Your task to perform on an android device: change keyboard looks Image 0: 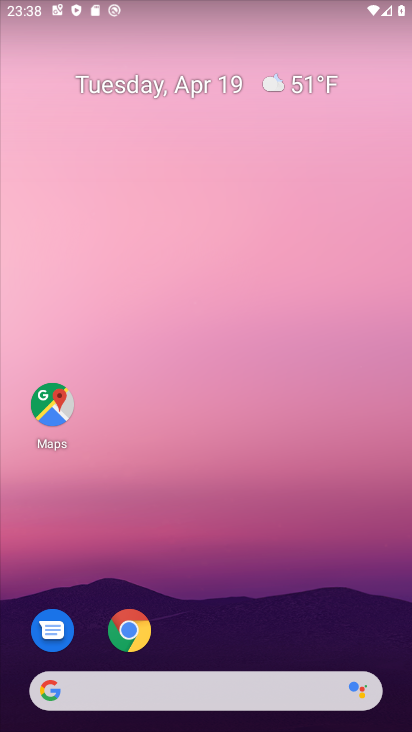
Step 0: drag from (287, 612) to (289, 85)
Your task to perform on an android device: change keyboard looks Image 1: 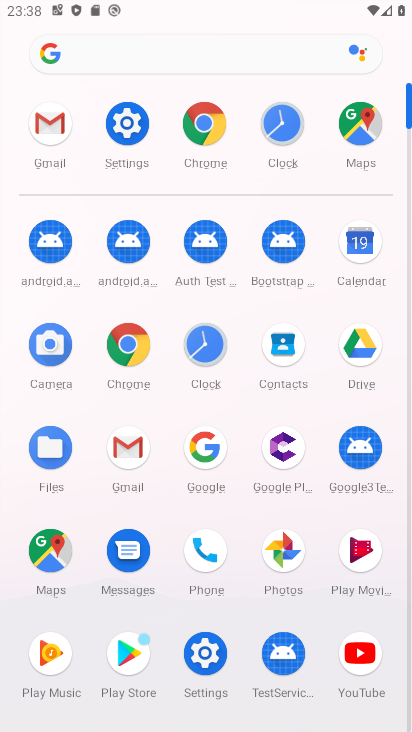
Step 1: click (115, 133)
Your task to perform on an android device: change keyboard looks Image 2: 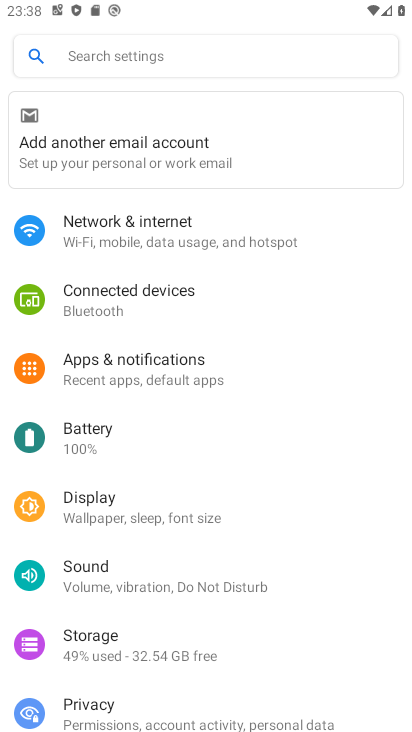
Step 2: drag from (257, 639) to (233, 196)
Your task to perform on an android device: change keyboard looks Image 3: 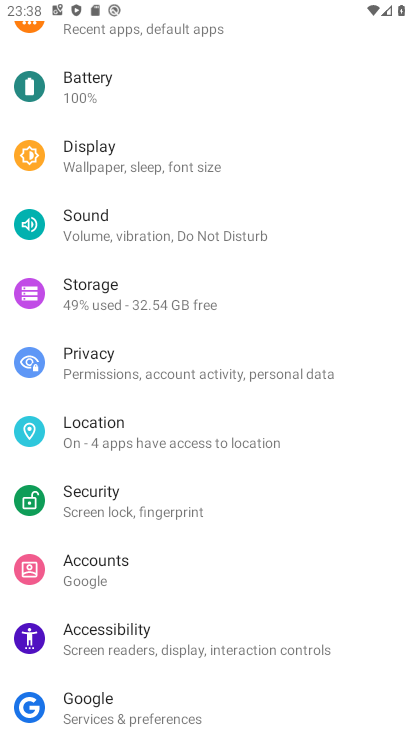
Step 3: drag from (243, 600) to (256, 65)
Your task to perform on an android device: change keyboard looks Image 4: 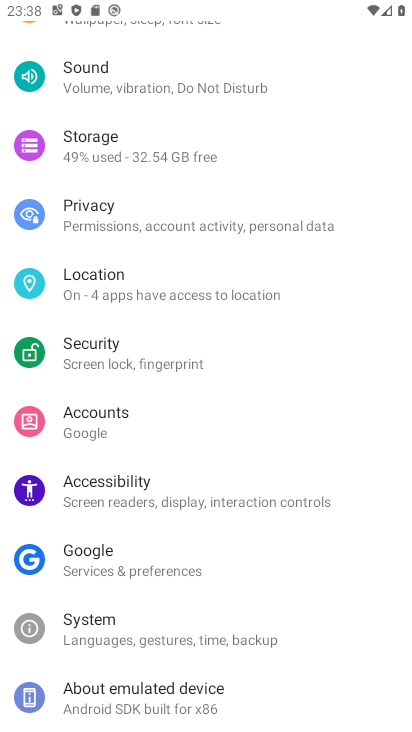
Step 4: drag from (288, 416) to (243, 111)
Your task to perform on an android device: change keyboard looks Image 5: 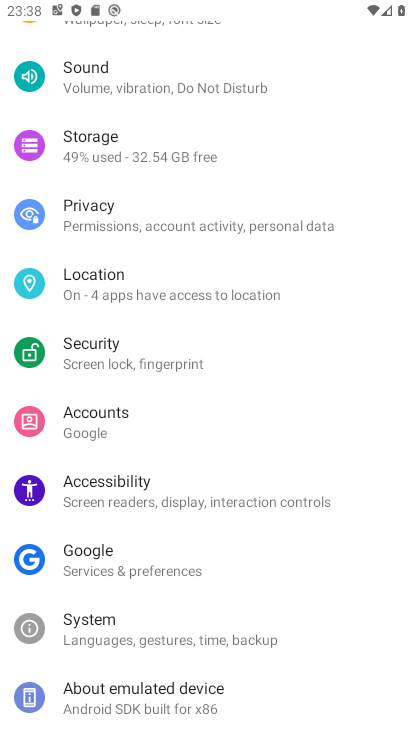
Step 5: click (301, 633)
Your task to perform on an android device: change keyboard looks Image 6: 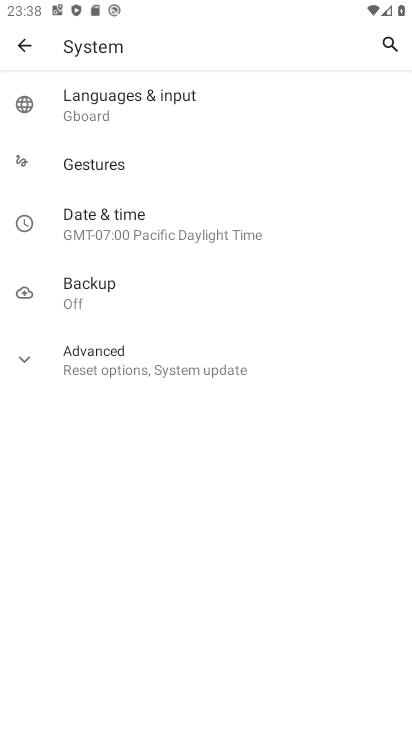
Step 6: click (236, 100)
Your task to perform on an android device: change keyboard looks Image 7: 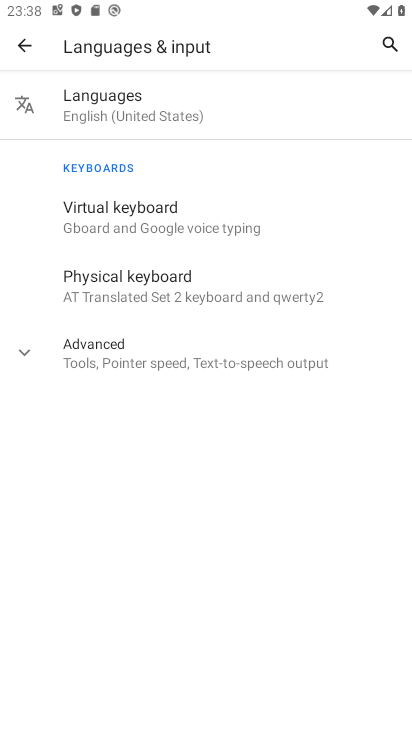
Step 7: click (245, 217)
Your task to perform on an android device: change keyboard looks Image 8: 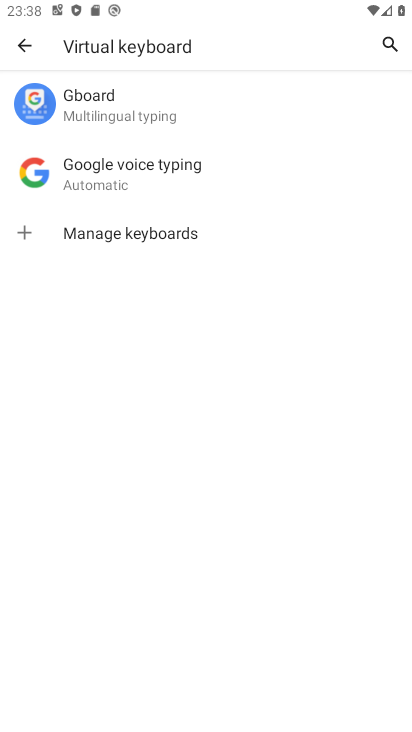
Step 8: click (235, 105)
Your task to perform on an android device: change keyboard looks Image 9: 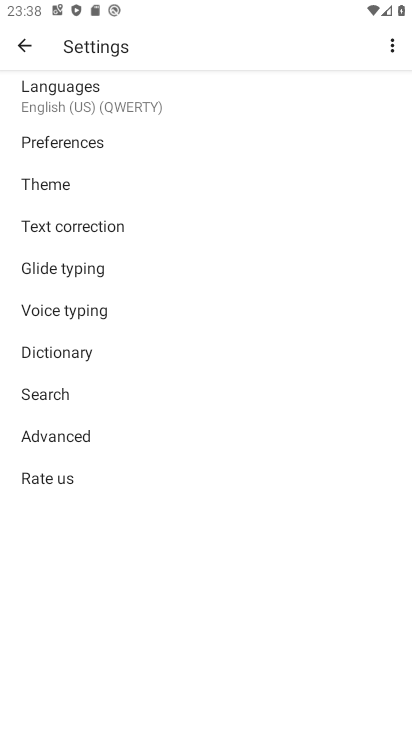
Step 9: click (155, 172)
Your task to perform on an android device: change keyboard looks Image 10: 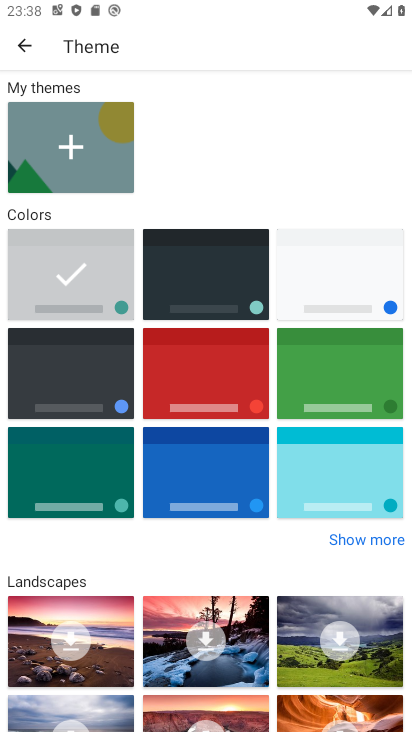
Step 10: click (186, 247)
Your task to perform on an android device: change keyboard looks Image 11: 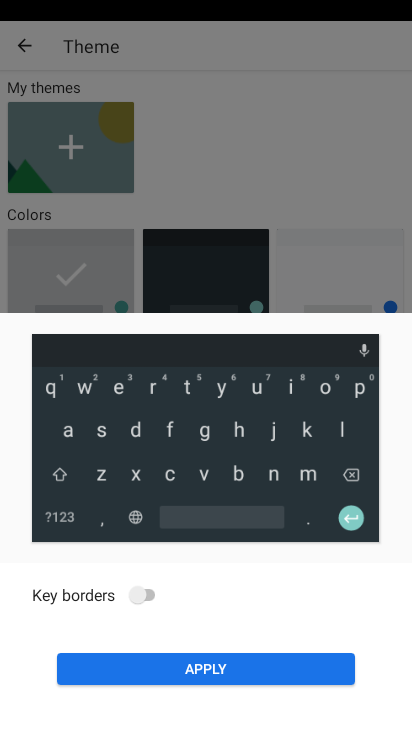
Step 11: click (283, 663)
Your task to perform on an android device: change keyboard looks Image 12: 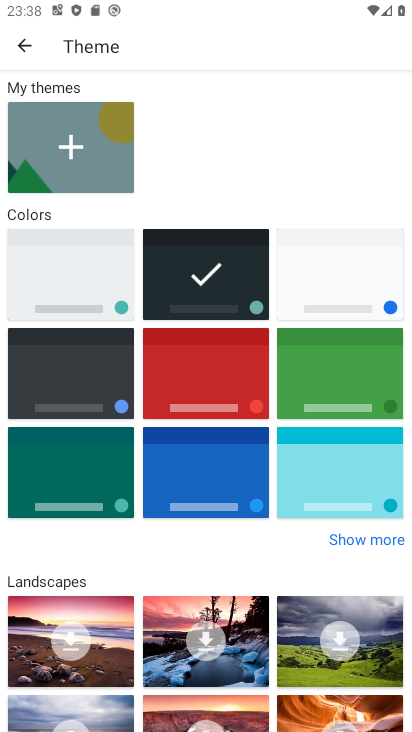
Step 12: task complete